Your task to perform on an android device: Open sound settings Image 0: 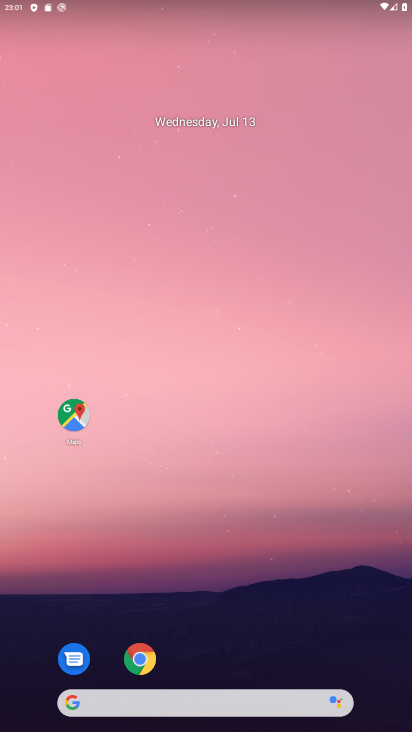
Step 0: drag from (316, 672) to (291, 48)
Your task to perform on an android device: Open sound settings Image 1: 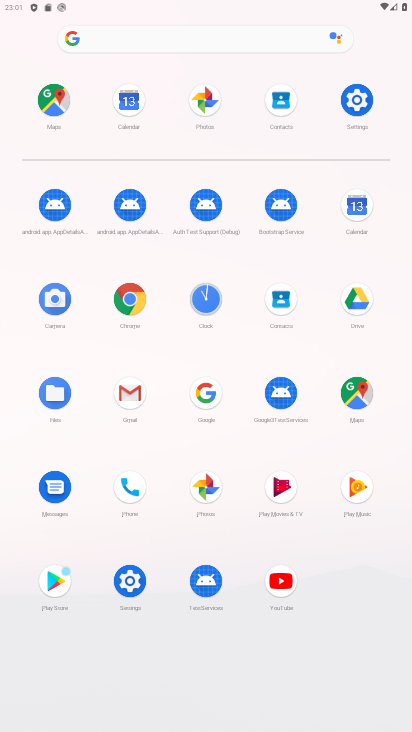
Step 1: click (131, 577)
Your task to perform on an android device: Open sound settings Image 2: 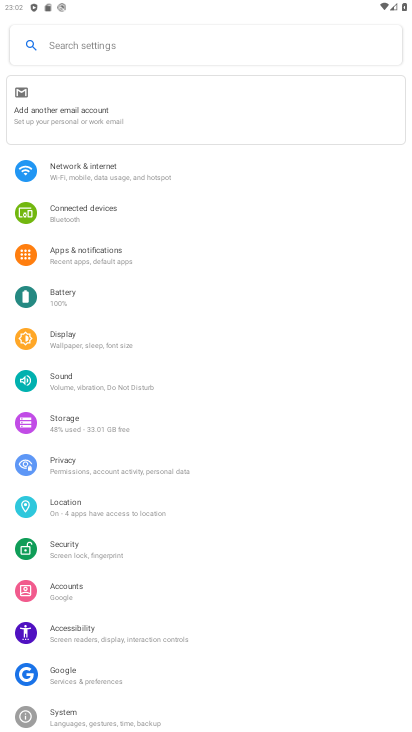
Step 2: click (63, 380)
Your task to perform on an android device: Open sound settings Image 3: 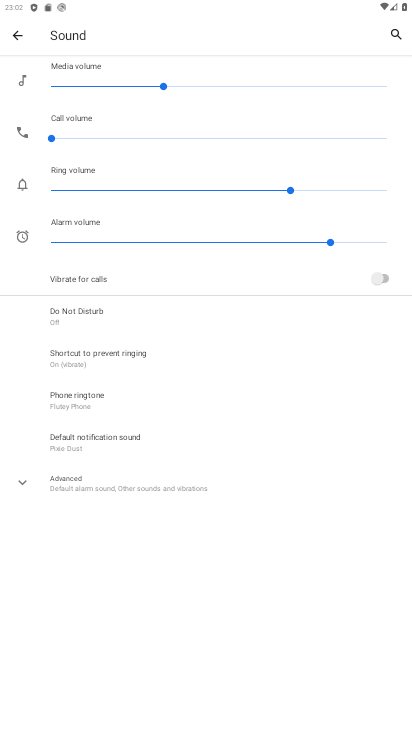
Step 3: click (16, 482)
Your task to perform on an android device: Open sound settings Image 4: 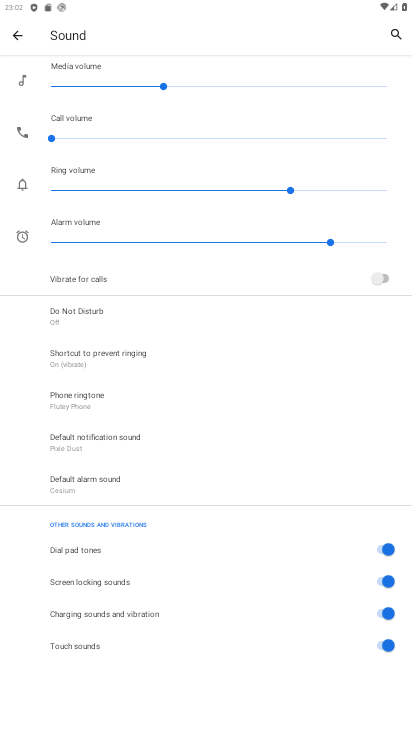
Step 4: task complete